Your task to perform on an android device: turn on priority inbox in the gmail app Image 0: 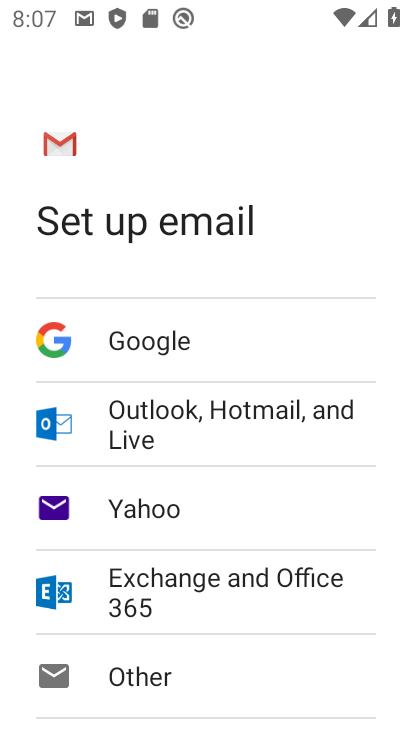
Step 0: press back button
Your task to perform on an android device: turn on priority inbox in the gmail app Image 1: 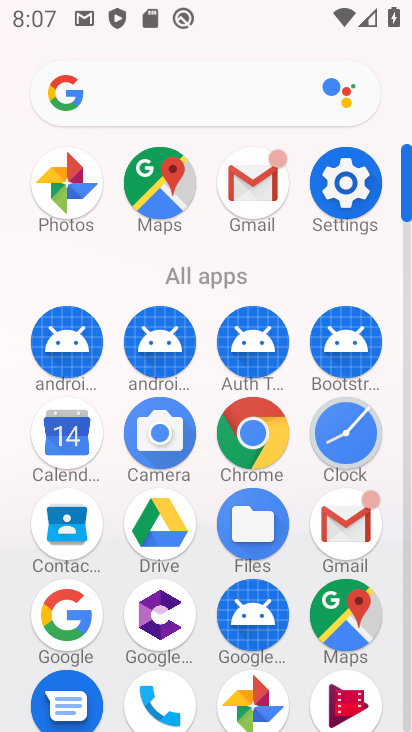
Step 1: click (271, 196)
Your task to perform on an android device: turn on priority inbox in the gmail app Image 2: 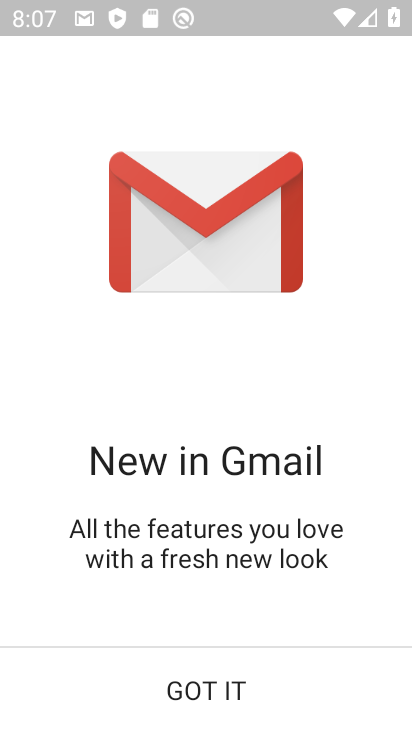
Step 2: click (202, 660)
Your task to perform on an android device: turn on priority inbox in the gmail app Image 3: 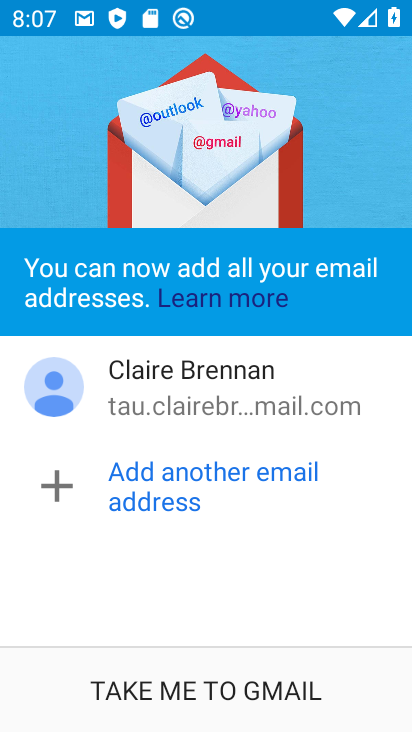
Step 3: click (198, 674)
Your task to perform on an android device: turn on priority inbox in the gmail app Image 4: 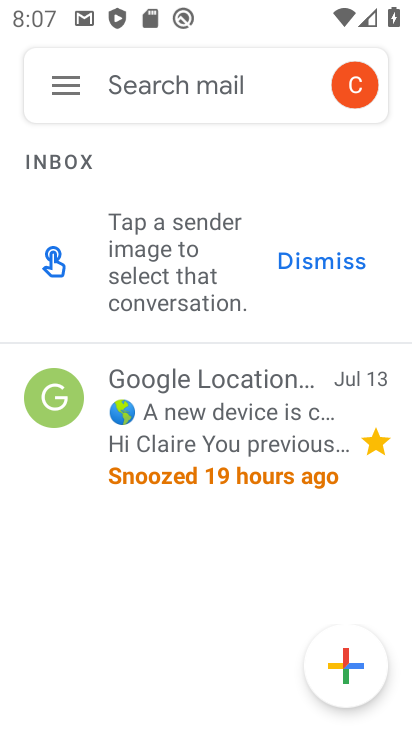
Step 4: click (68, 85)
Your task to perform on an android device: turn on priority inbox in the gmail app Image 5: 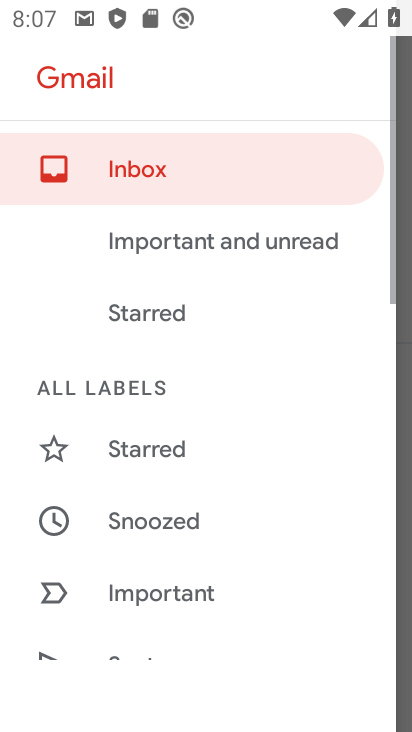
Step 5: drag from (204, 643) to (287, 147)
Your task to perform on an android device: turn on priority inbox in the gmail app Image 6: 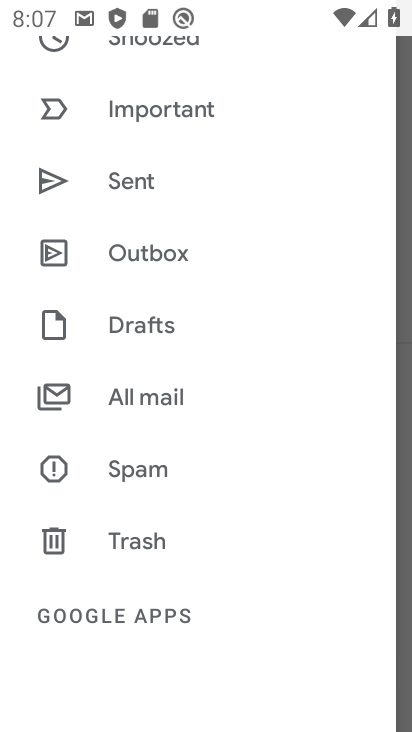
Step 6: drag from (232, 593) to (315, 80)
Your task to perform on an android device: turn on priority inbox in the gmail app Image 7: 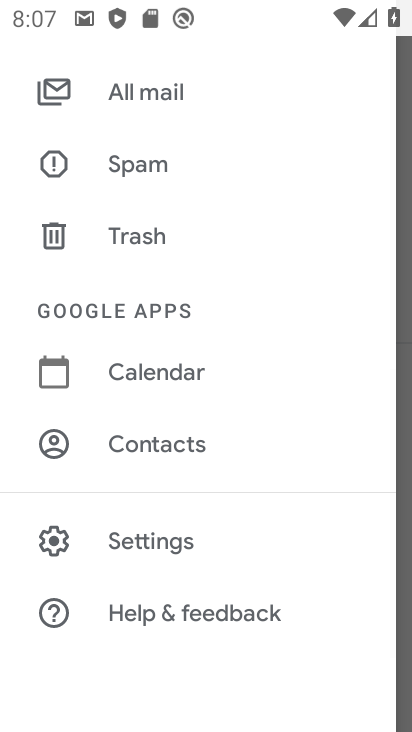
Step 7: click (145, 552)
Your task to perform on an android device: turn on priority inbox in the gmail app Image 8: 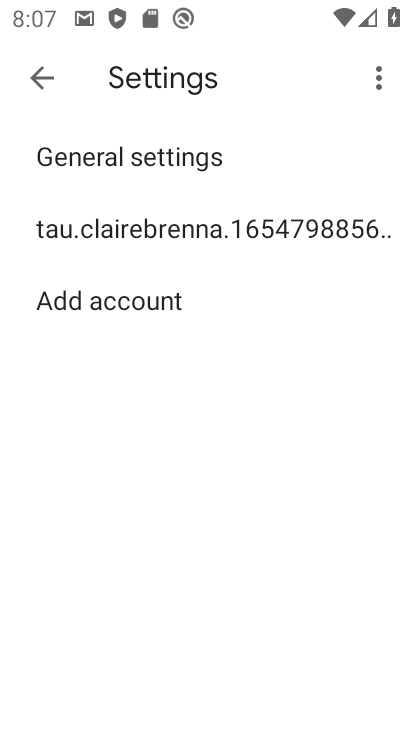
Step 8: click (142, 224)
Your task to perform on an android device: turn on priority inbox in the gmail app Image 9: 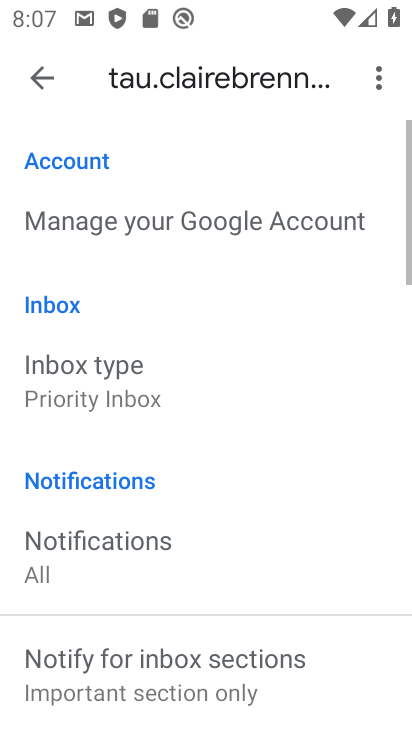
Step 9: click (87, 376)
Your task to perform on an android device: turn on priority inbox in the gmail app Image 10: 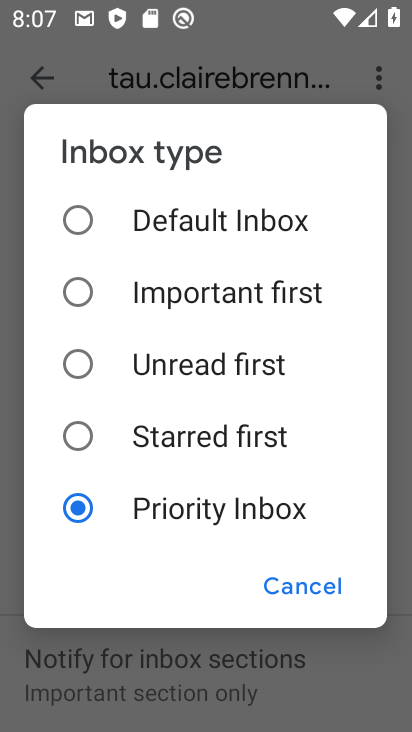
Step 10: task complete